Your task to perform on an android device: turn smart compose on in the gmail app Image 0: 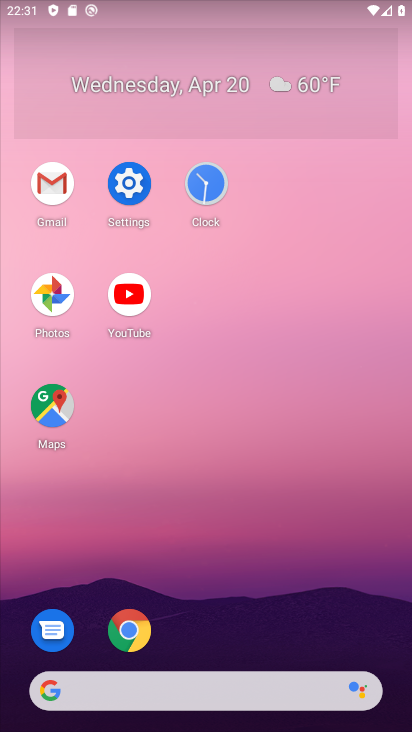
Step 0: click (47, 190)
Your task to perform on an android device: turn smart compose on in the gmail app Image 1: 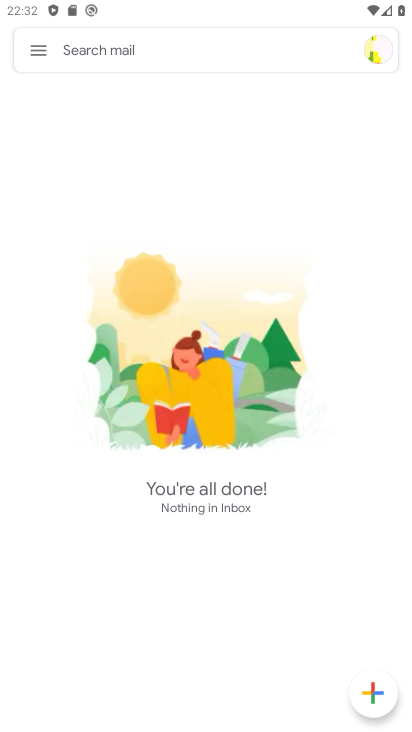
Step 1: click (36, 49)
Your task to perform on an android device: turn smart compose on in the gmail app Image 2: 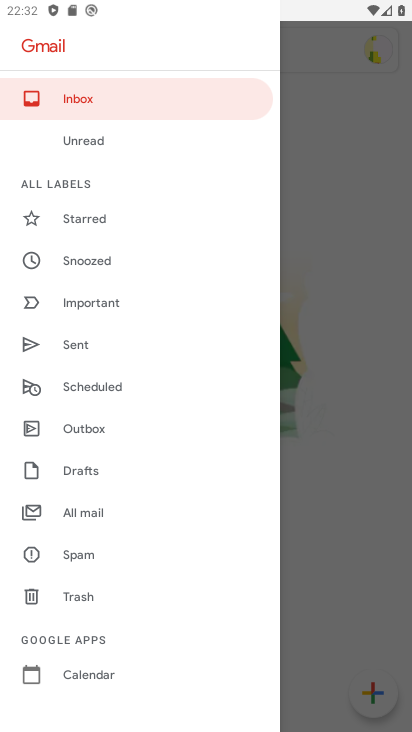
Step 2: drag from (131, 558) to (207, 176)
Your task to perform on an android device: turn smart compose on in the gmail app Image 3: 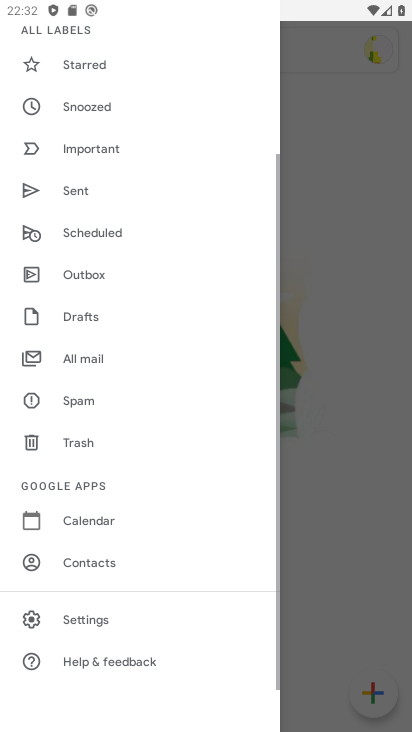
Step 3: click (92, 617)
Your task to perform on an android device: turn smart compose on in the gmail app Image 4: 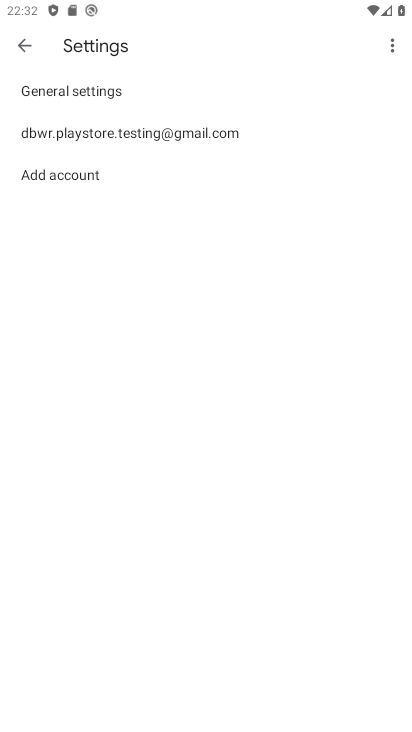
Step 4: click (241, 126)
Your task to perform on an android device: turn smart compose on in the gmail app Image 5: 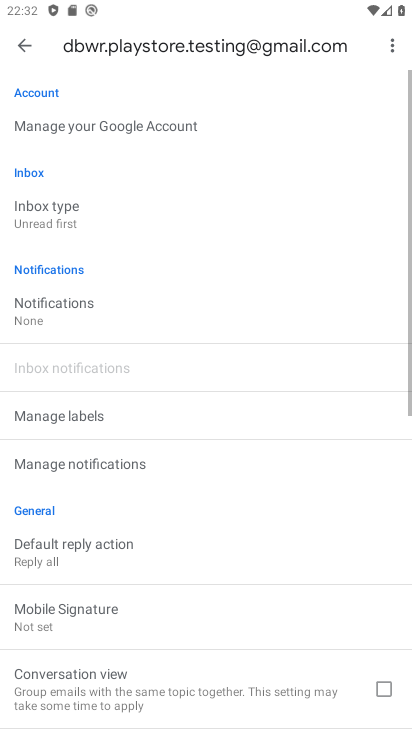
Step 5: task complete